Your task to perform on an android device: Go to internet settings Image 0: 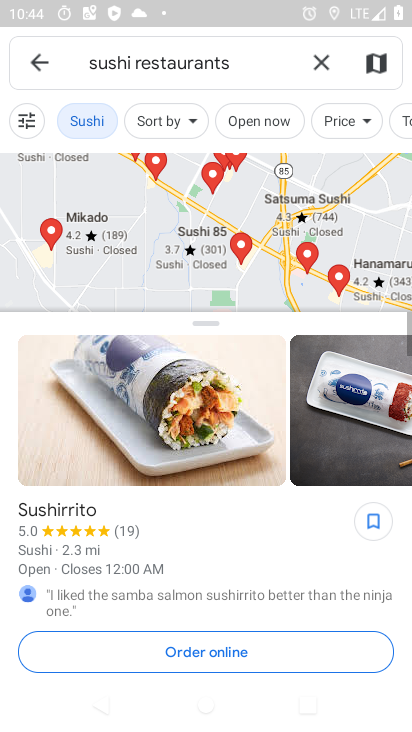
Step 0: press home button
Your task to perform on an android device: Go to internet settings Image 1: 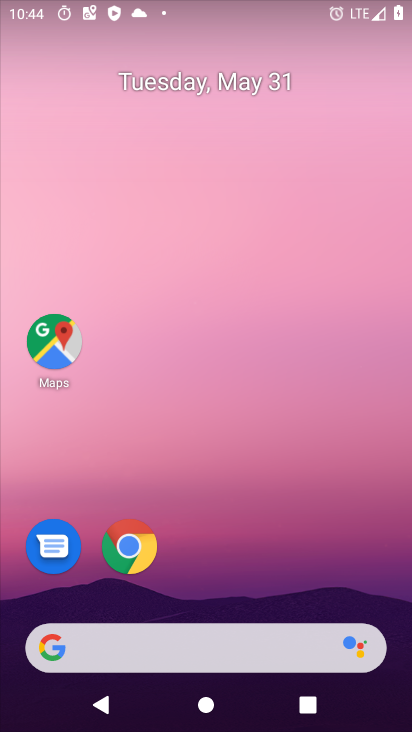
Step 1: drag from (278, 522) to (272, 208)
Your task to perform on an android device: Go to internet settings Image 2: 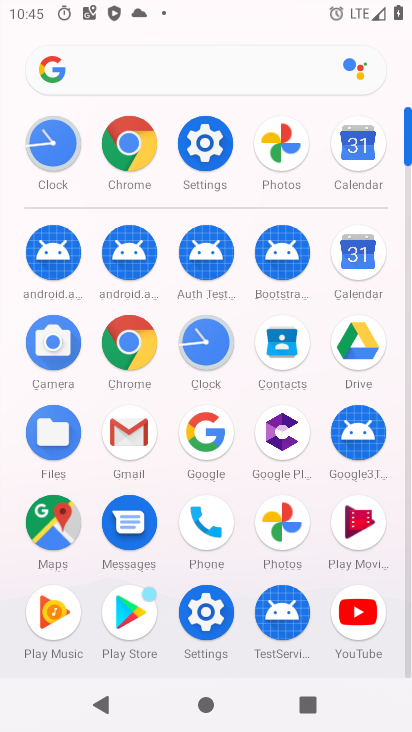
Step 2: click (215, 161)
Your task to perform on an android device: Go to internet settings Image 3: 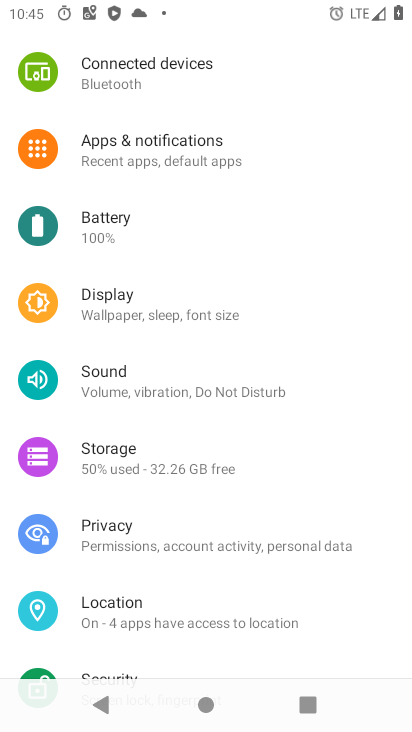
Step 3: drag from (144, 106) to (156, 421)
Your task to perform on an android device: Go to internet settings Image 4: 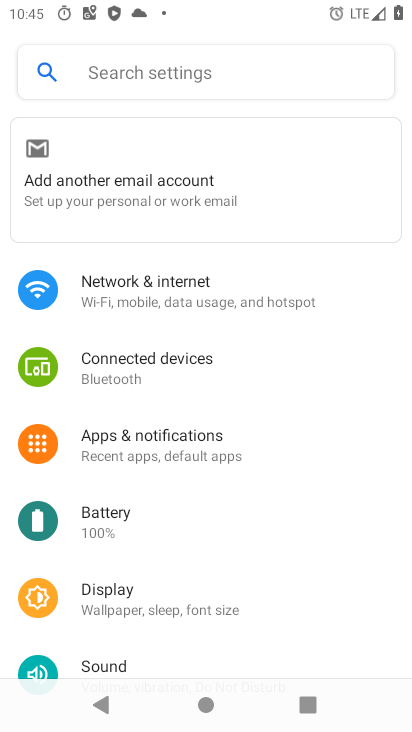
Step 4: click (200, 264)
Your task to perform on an android device: Go to internet settings Image 5: 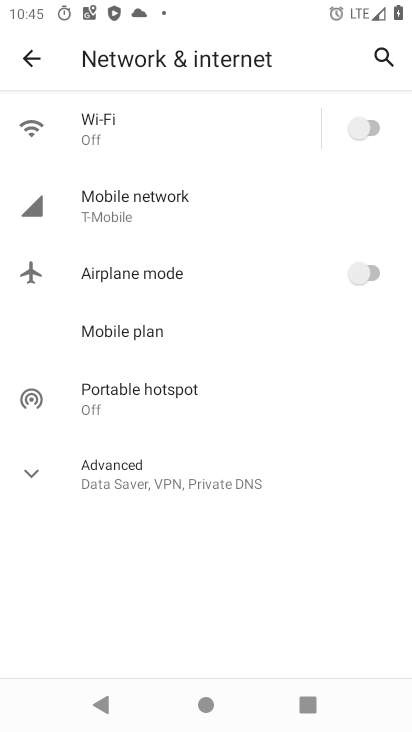
Step 5: task complete